Your task to perform on an android device: Open calendar and show me the fourth week of next month Image 0: 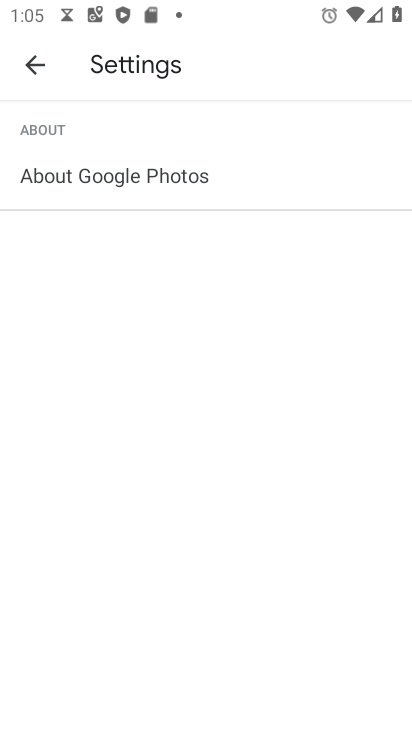
Step 0: press home button
Your task to perform on an android device: Open calendar and show me the fourth week of next month Image 1: 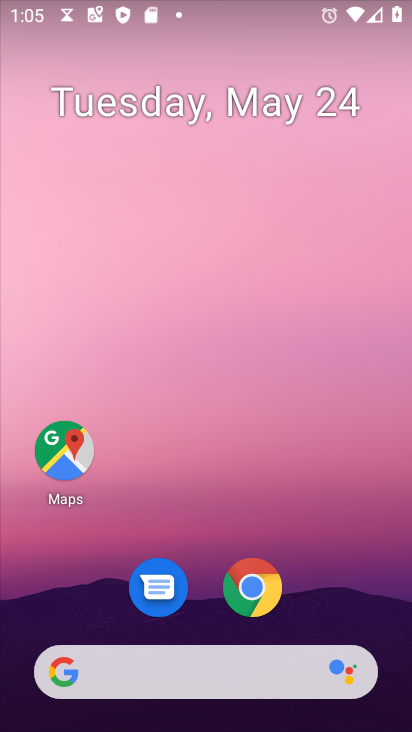
Step 1: drag from (220, 653) to (236, 496)
Your task to perform on an android device: Open calendar and show me the fourth week of next month Image 2: 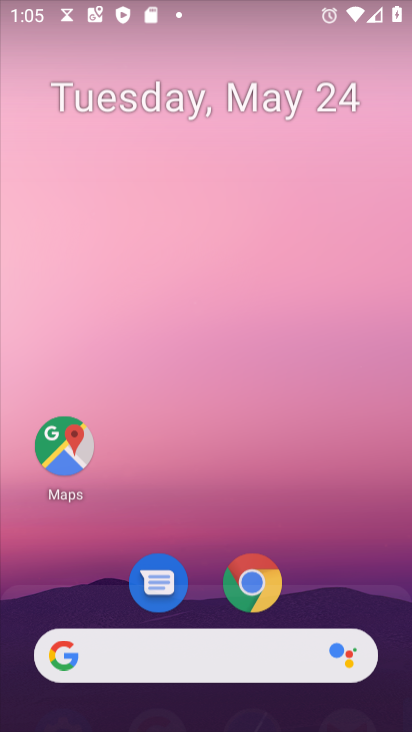
Step 2: click (235, 475)
Your task to perform on an android device: Open calendar and show me the fourth week of next month Image 3: 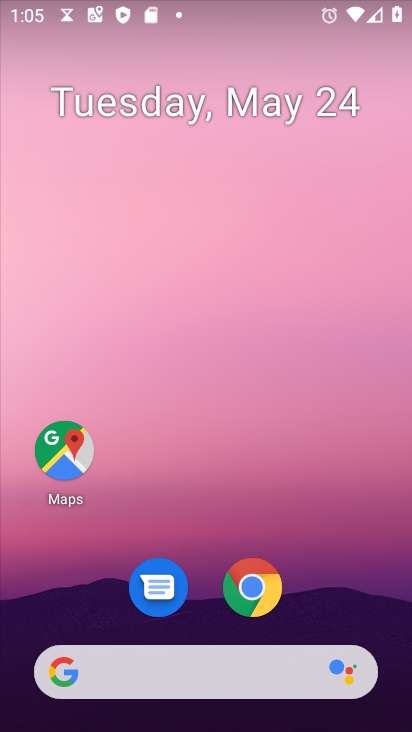
Step 3: drag from (197, 644) to (221, 281)
Your task to perform on an android device: Open calendar and show me the fourth week of next month Image 4: 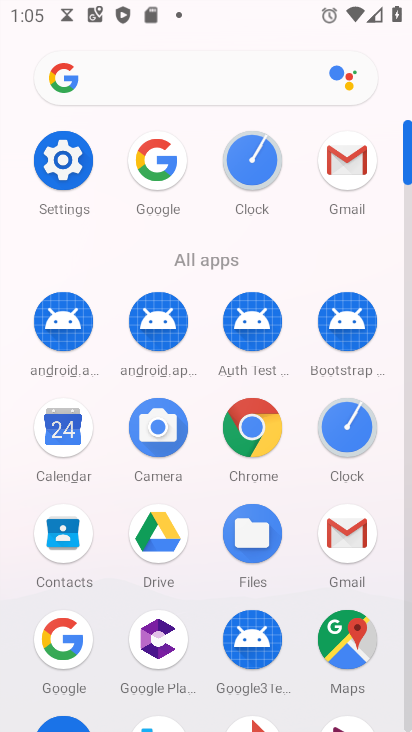
Step 4: click (64, 458)
Your task to perform on an android device: Open calendar and show me the fourth week of next month Image 5: 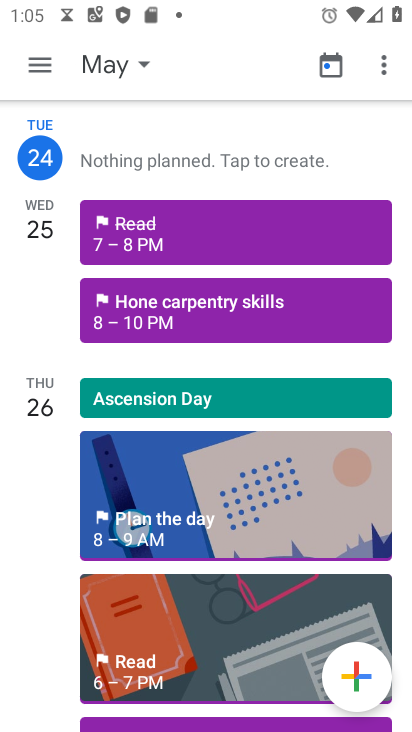
Step 5: click (46, 72)
Your task to perform on an android device: Open calendar and show me the fourth week of next month Image 6: 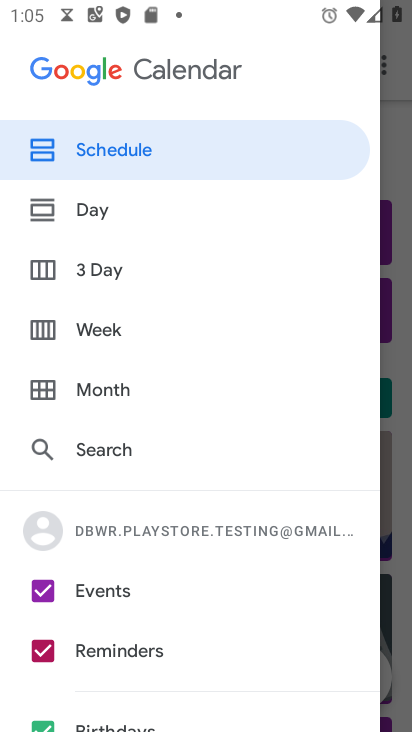
Step 6: click (142, 390)
Your task to perform on an android device: Open calendar and show me the fourth week of next month Image 7: 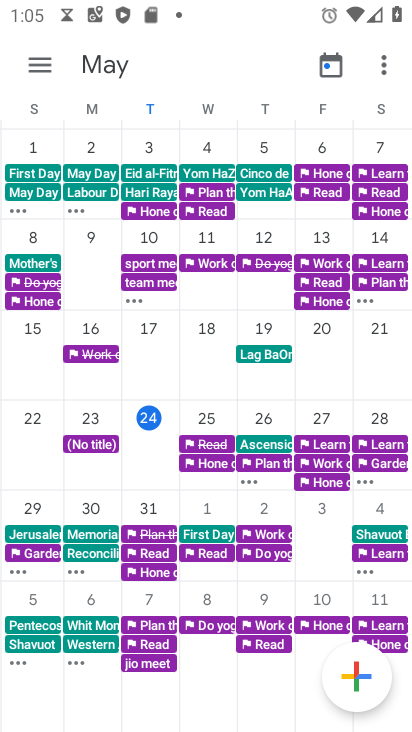
Step 7: task complete